Your task to perform on an android device: Open privacy settings Image 0: 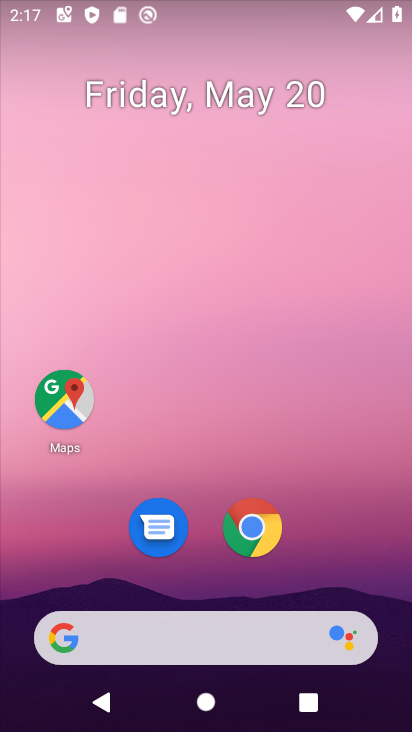
Step 0: click (257, 530)
Your task to perform on an android device: Open privacy settings Image 1: 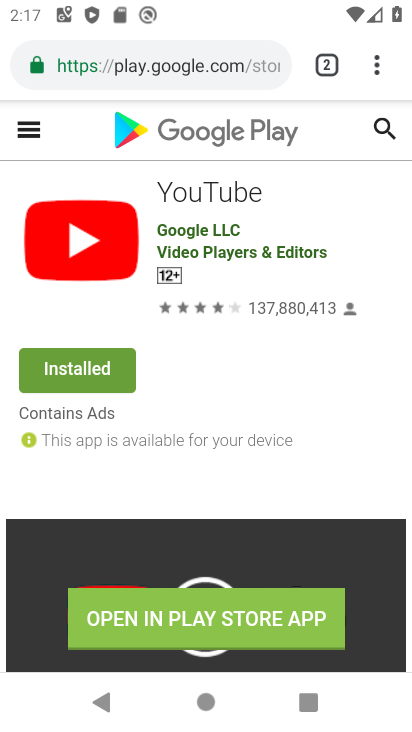
Step 1: press home button
Your task to perform on an android device: Open privacy settings Image 2: 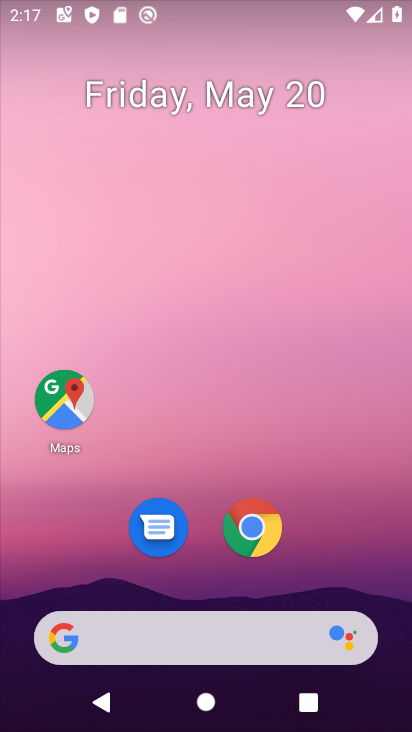
Step 2: drag from (233, 696) to (336, 89)
Your task to perform on an android device: Open privacy settings Image 3: 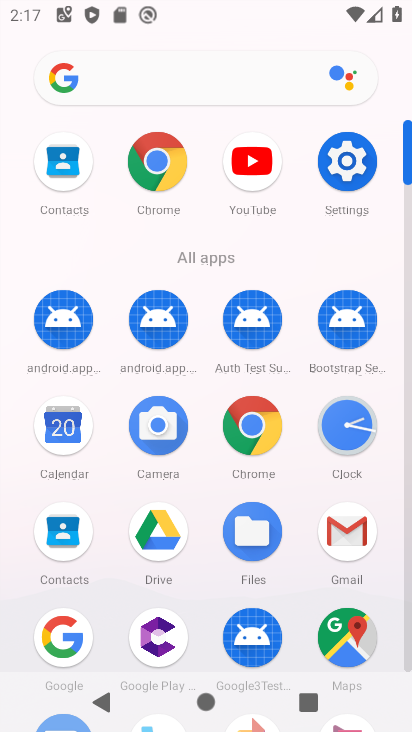
Step 3: click (337, 155)
Your task to perform on an android device: Open privacy settings Image 4: 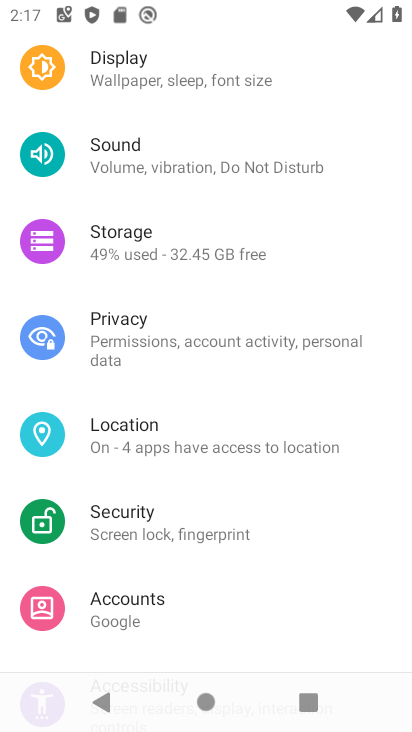
Step 4: click (189, 320)
Your task to perform on an android device: Open privacy settings Image 5: 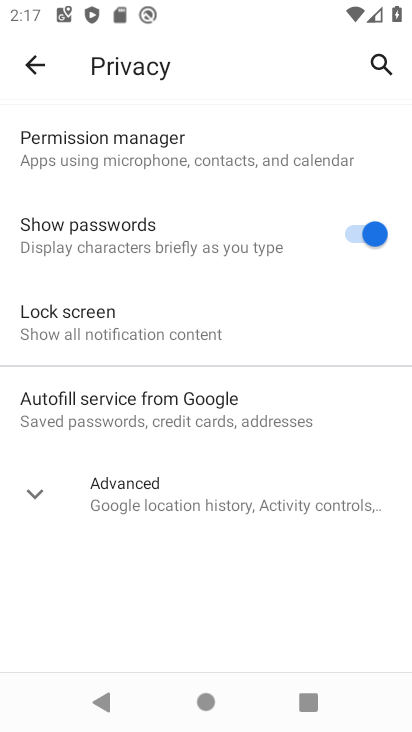
Step 5: task complete